Your task to perform on an android device: Go to battery settings Image 0: 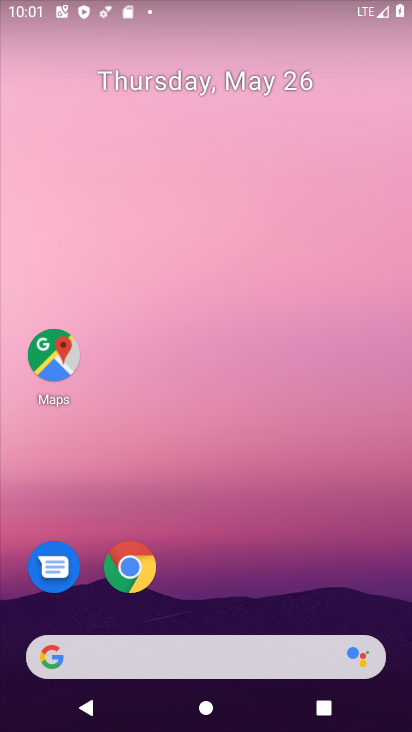
Step 0: drag from (236, 677) to (178, 52)
Your task to perform on an android device: Go to battery settings Image 1: 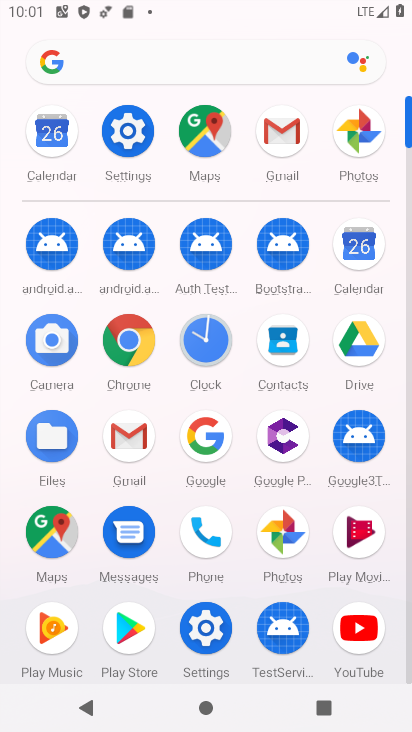
Step 1: click (148, 129)
Your task to perform on an android device: Go to battery settings Image 2: 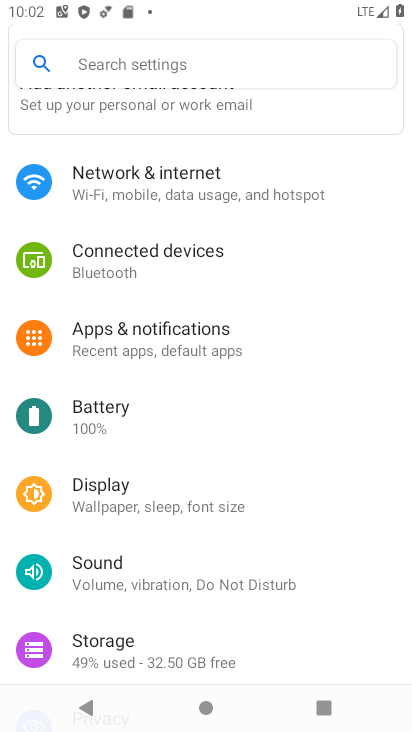
Step 2: click (143, 411)
Your task to perform on an android device: Go to battery settings Image 3: 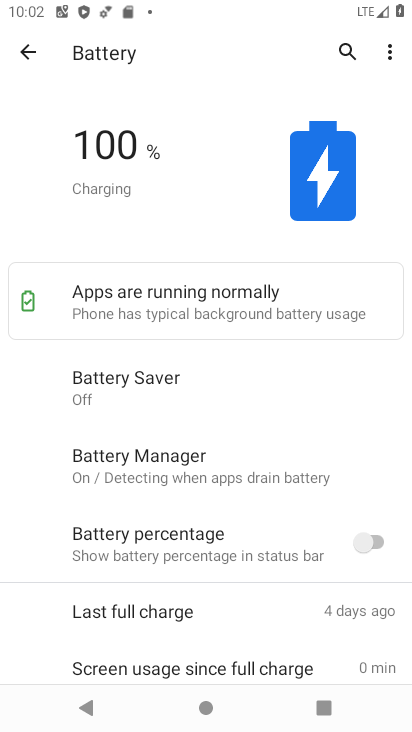
Step 3: task complete